Your task to perform on an android device: turn on location history Image 0: 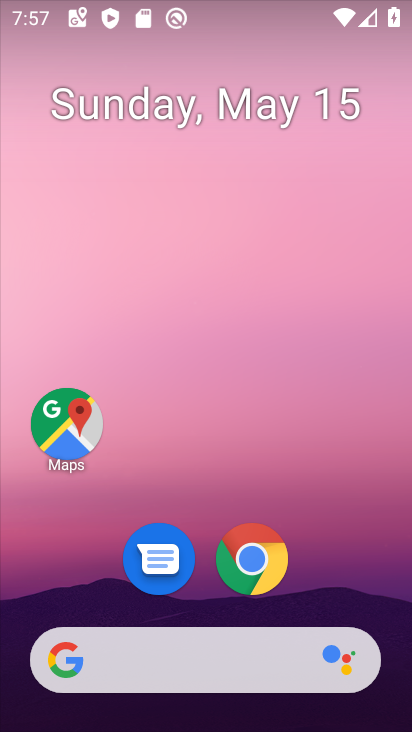
Step 0: click (268, 561)
Your task to perform on an android device: turn on location history Image 1: 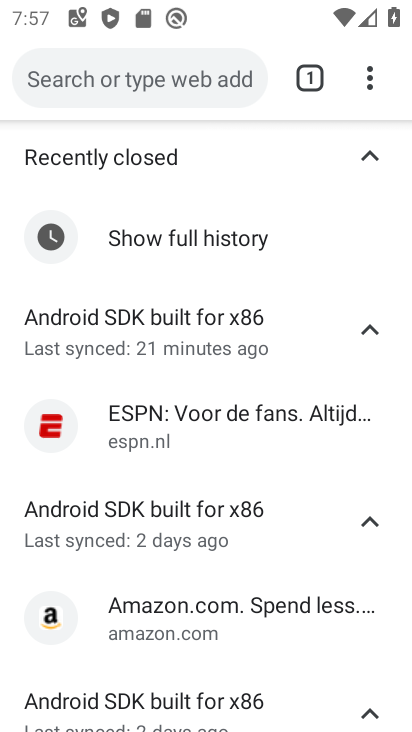
Step 1: press home button
Your task to perform on an android device: turn on location history Image 2: 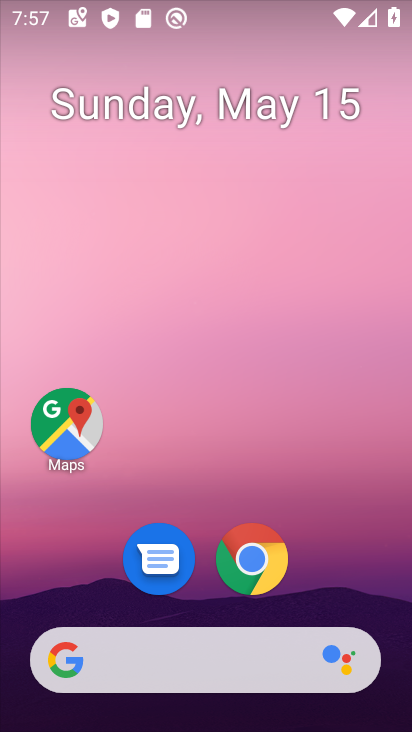
Step 2: drag from (319, 595) to (321, 182)
Your task to perform on an android device: turn on location history Image 3: 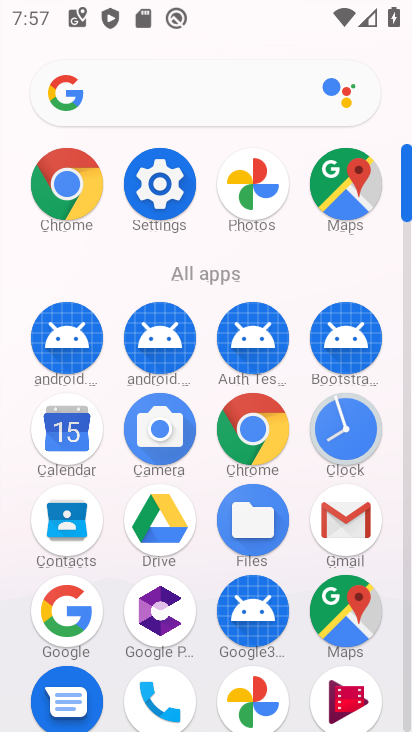
Step 3: click (177, 222)
Your task to perform on an android device: turn on location history Image 4: 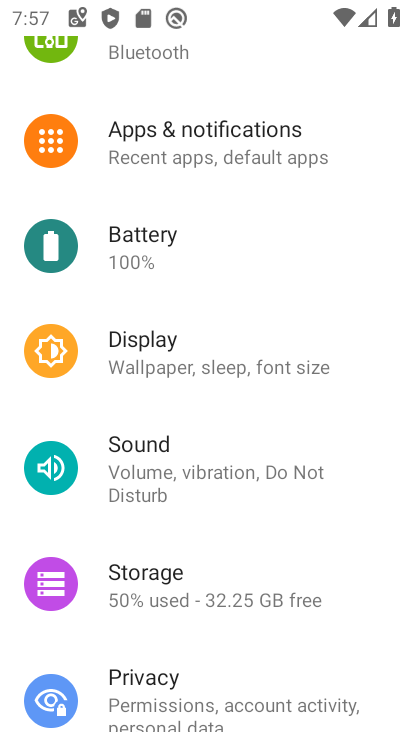
Step 4: drag from (135, 552) to (168, 227)
Your task to perform on an android device: turn on location history Image 5: 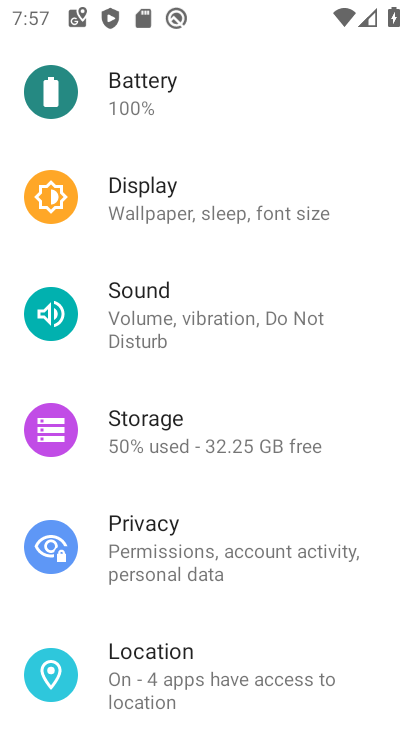
Step 5: click (172, 682)
Your task to perform on an android device: turn on location history Image 6: 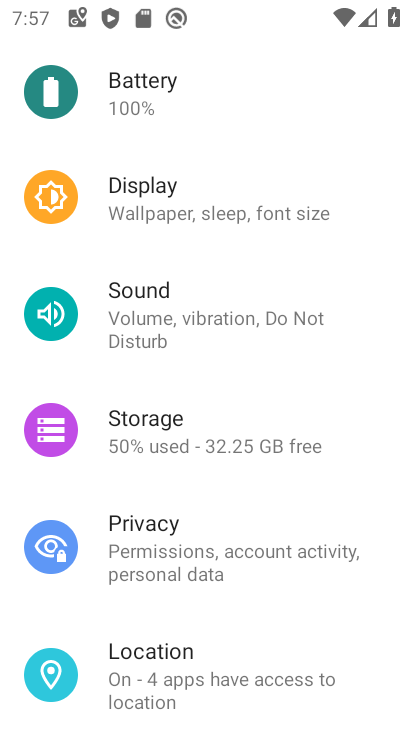
Step 6: click (174, 655)
Your task to perform on an android device: turn on location history Image 7: 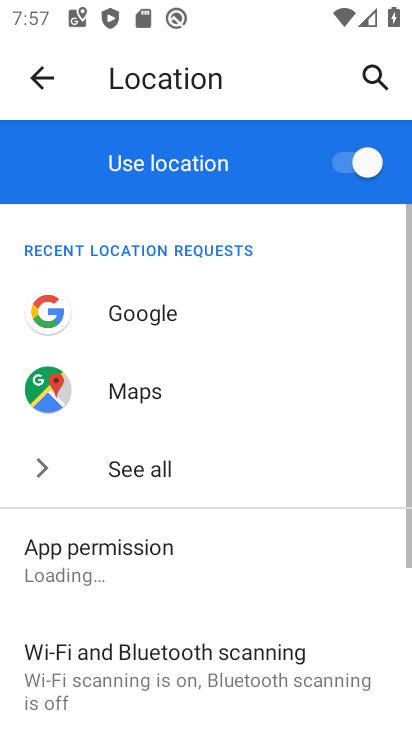
Step 7: drag from (182, 618) to (223, 362)
Your task to perform on an android device: turn on location history Image 8: 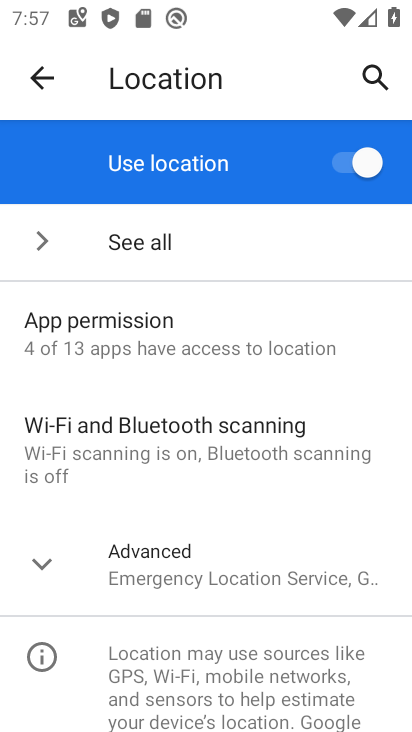
Step 8: click (186, 586)
Your task to perform on an android device: turn on location history Image 9: 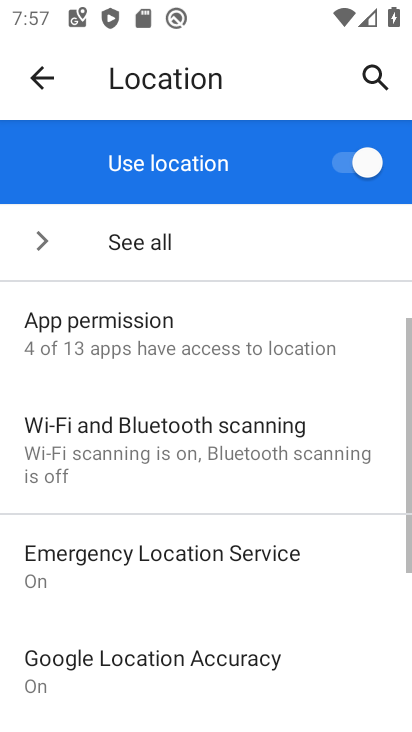
Step 9: drag from (186, 586) to (226, 424)
Your task to perform on an android device: turn on location history Image 10: 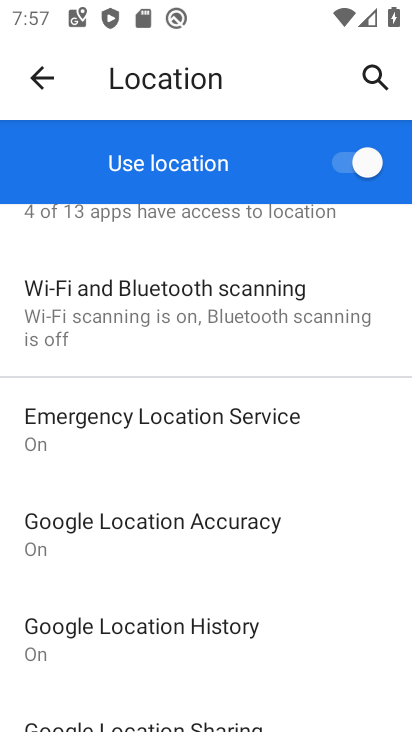
Step 10: click (228, 608)
Your task to perform on an android device: turn on location history Image 11: 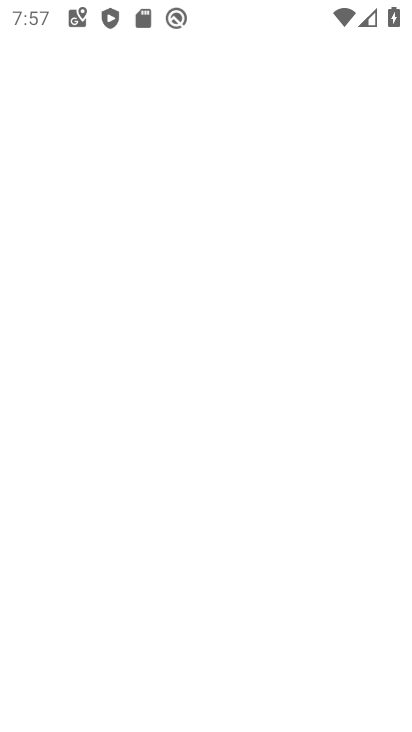
Step 11: task complete